Your task to perform on an android device: turn off location Image 0: 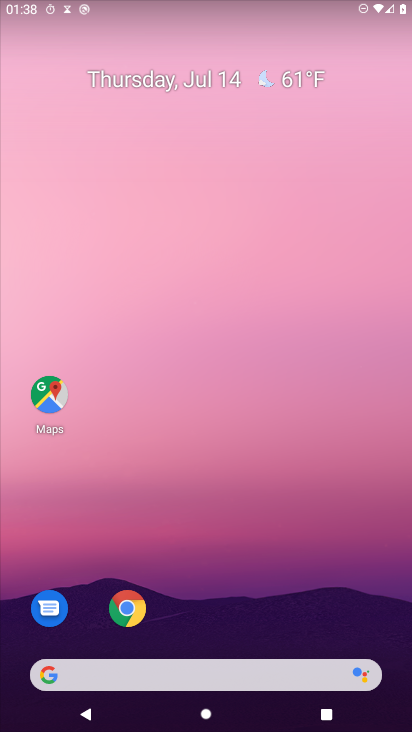
Step 0: press home button
Your task to perform on an android device: turn off location Image 1: 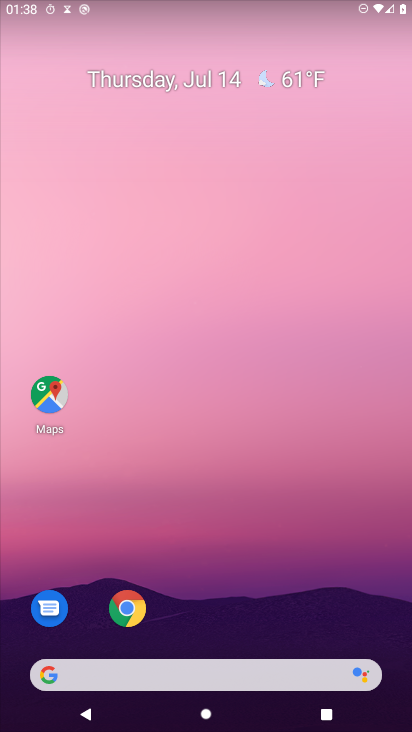
Step 1: drag from (288, 605) to (290, 59)
Your task to perform on an android device: turn off location Image 2: 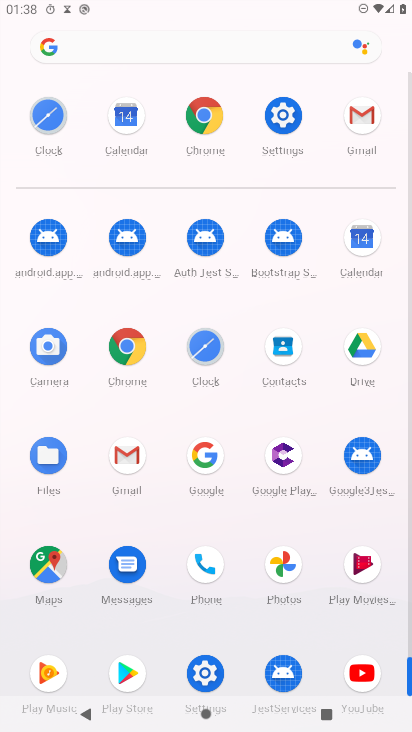
Step 2: click (281, 125)
Your task to perform on an android device: turn off location Image 3: 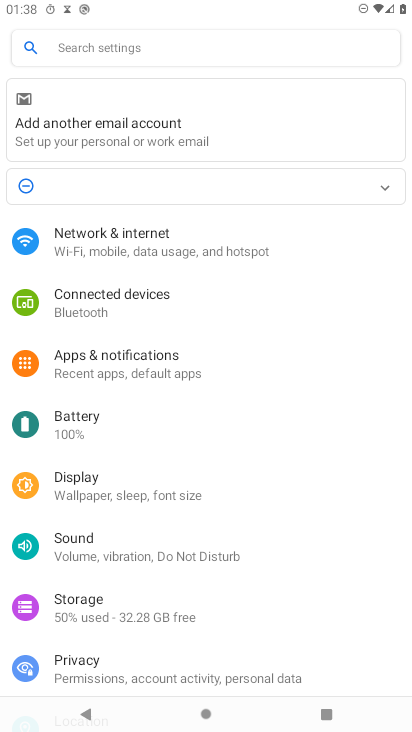
Step 3: drag from (146, 639) to (142, 357)
Your task to perform on an android device: turn off location Image 4: 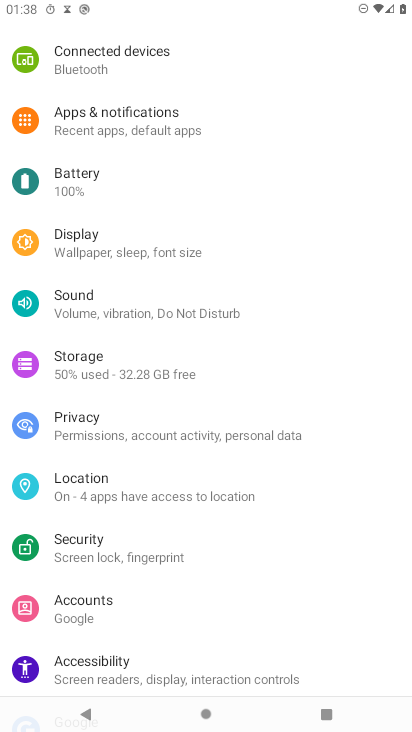
Step 4: click (109, 494)
Your task to perform on an android device: turn off location Image 5: 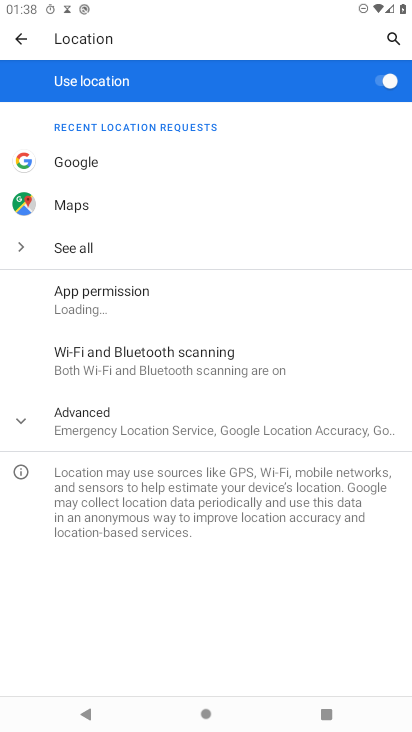
Step 5: click (382, 76)
Your task to perform on an android device: turn off location Image 6: 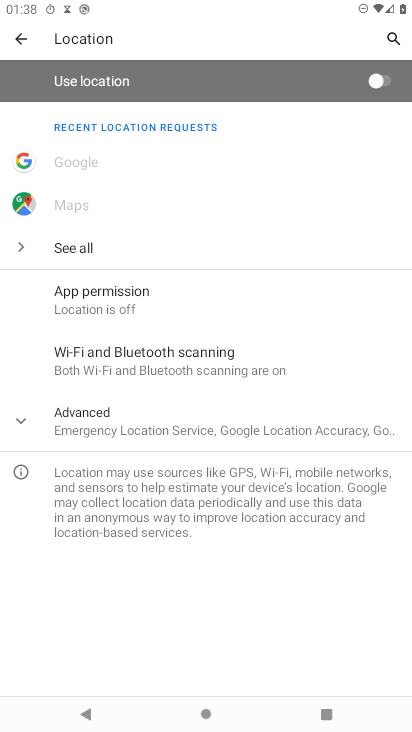
Step 6: task complete